Your task to perform on an android device: Open Google Image 0: 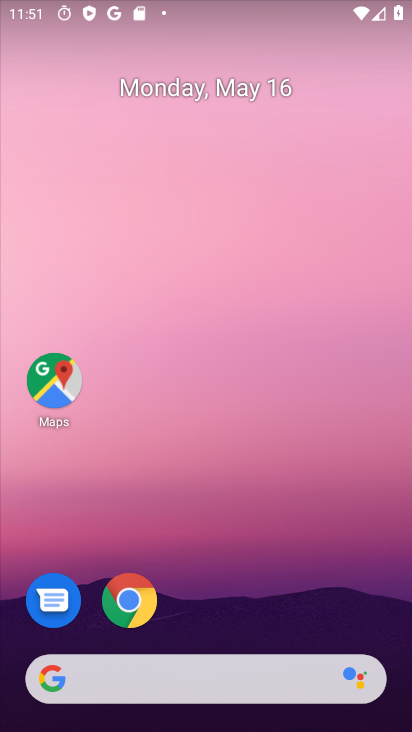
Step 0: drag from (202, 585) to (179, 0)
Your task to perform on an android device: Open Google Image 1: 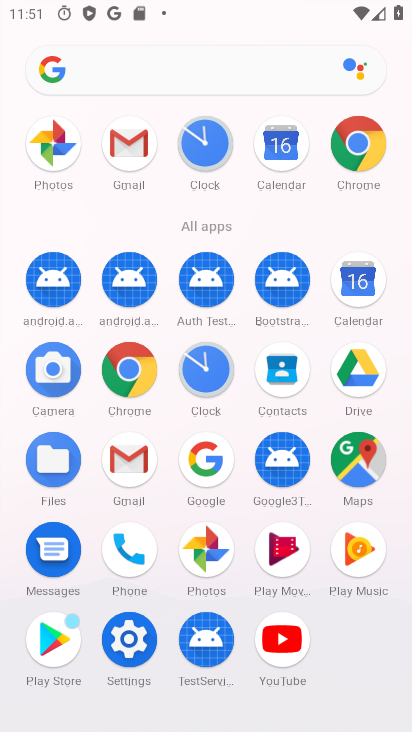
Step 1: click (207, 467)
Your task to perform on an android device: Open Google Image 2: 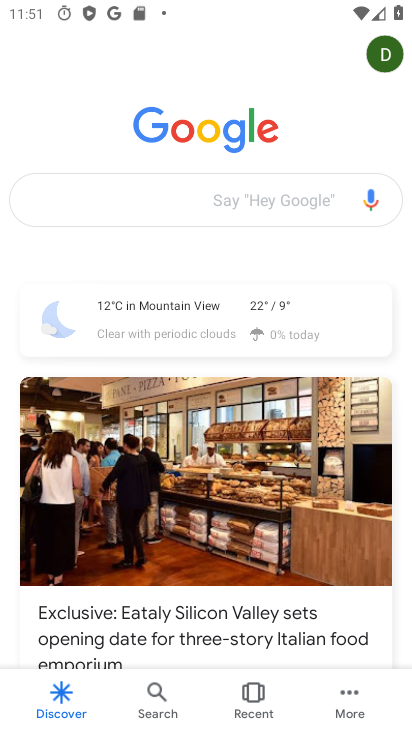
Step 2: task complete